Your task to perform on an android device: Clear the cart on newegg.com. Search for razer naga on newegg.com, select the first entry, and add it to the cart. Image 0: 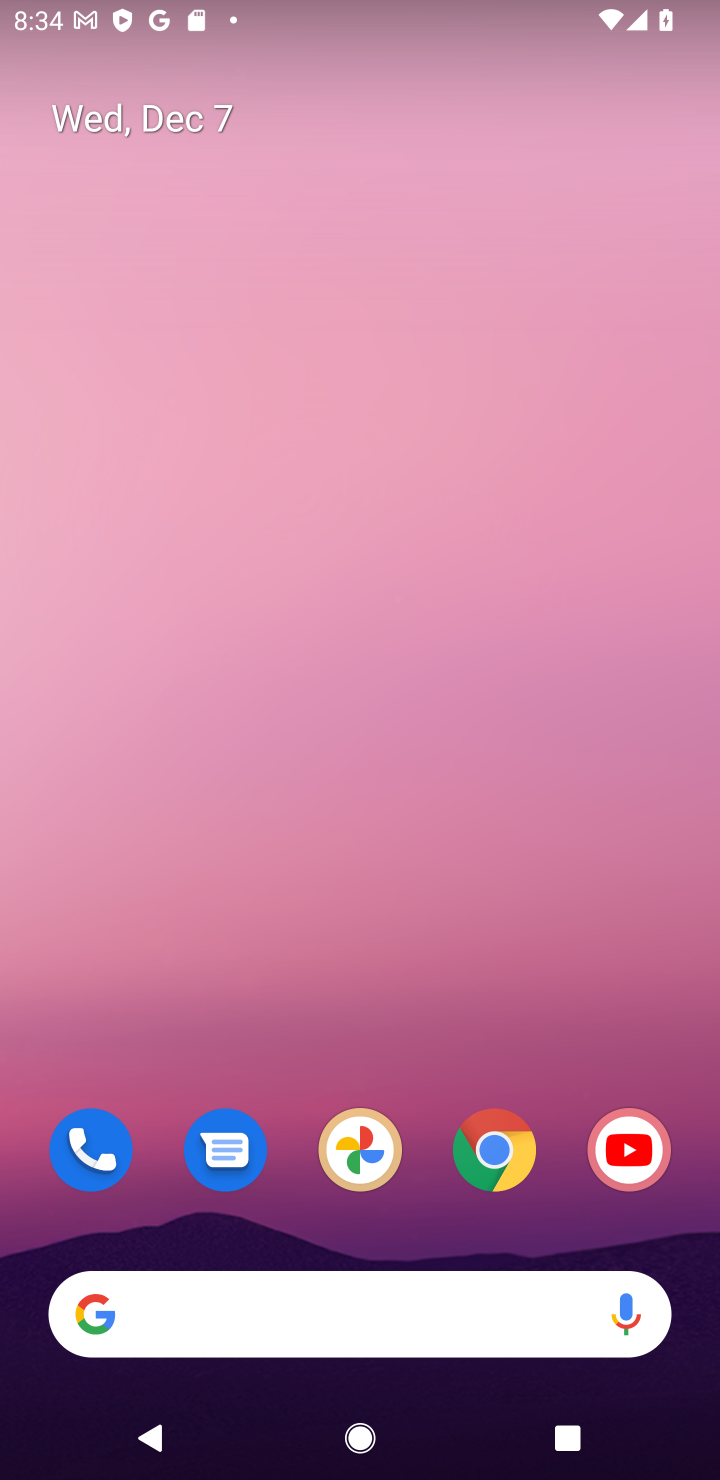
Step 0: click (500, 1155)
Your task to perform on an android device: Clear the cart on newegg.com. Search for razer naga on newegg.com, select the first entry, and add it to the cart. Image 1: 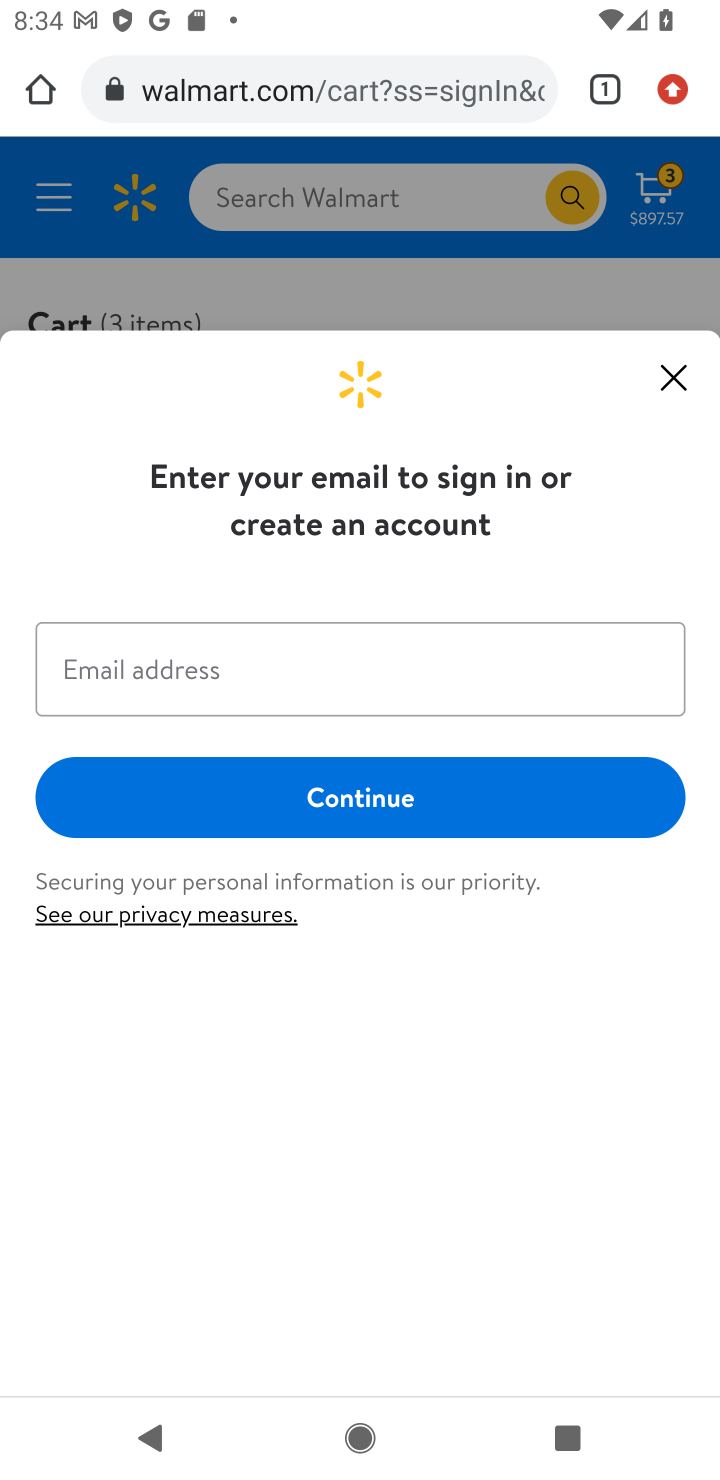
Step 1: click (302, 119)
Your task to perform on an android device: Clear the cart on newegg.com. Search for razer naga on newegg.com, select the first entry, and add it to the cart. Image 2: 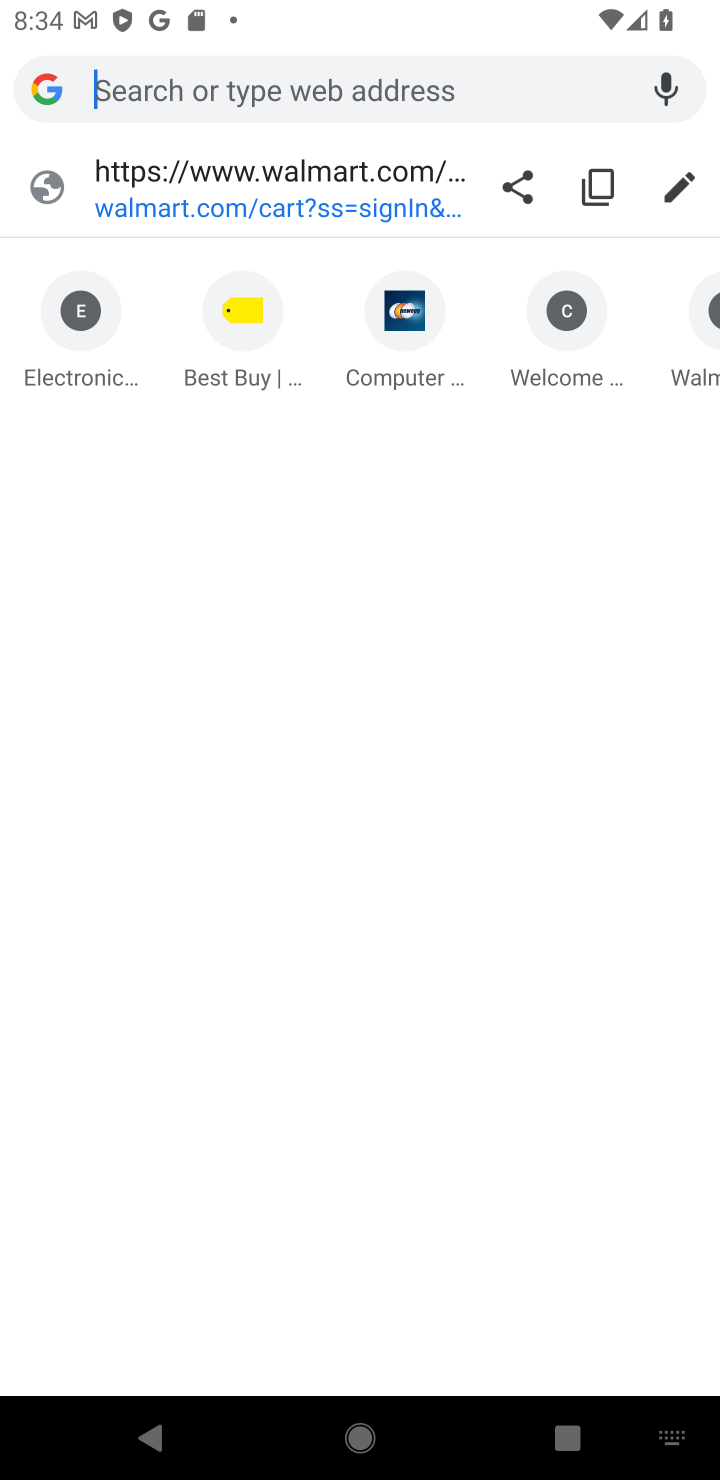
Step 2: type "newegg.com"
Your task to perform on an android device: Clear the cart on newegg.com. Search for razer naga on newegg.com, select the first entry, and add it to the cart. Image 3: 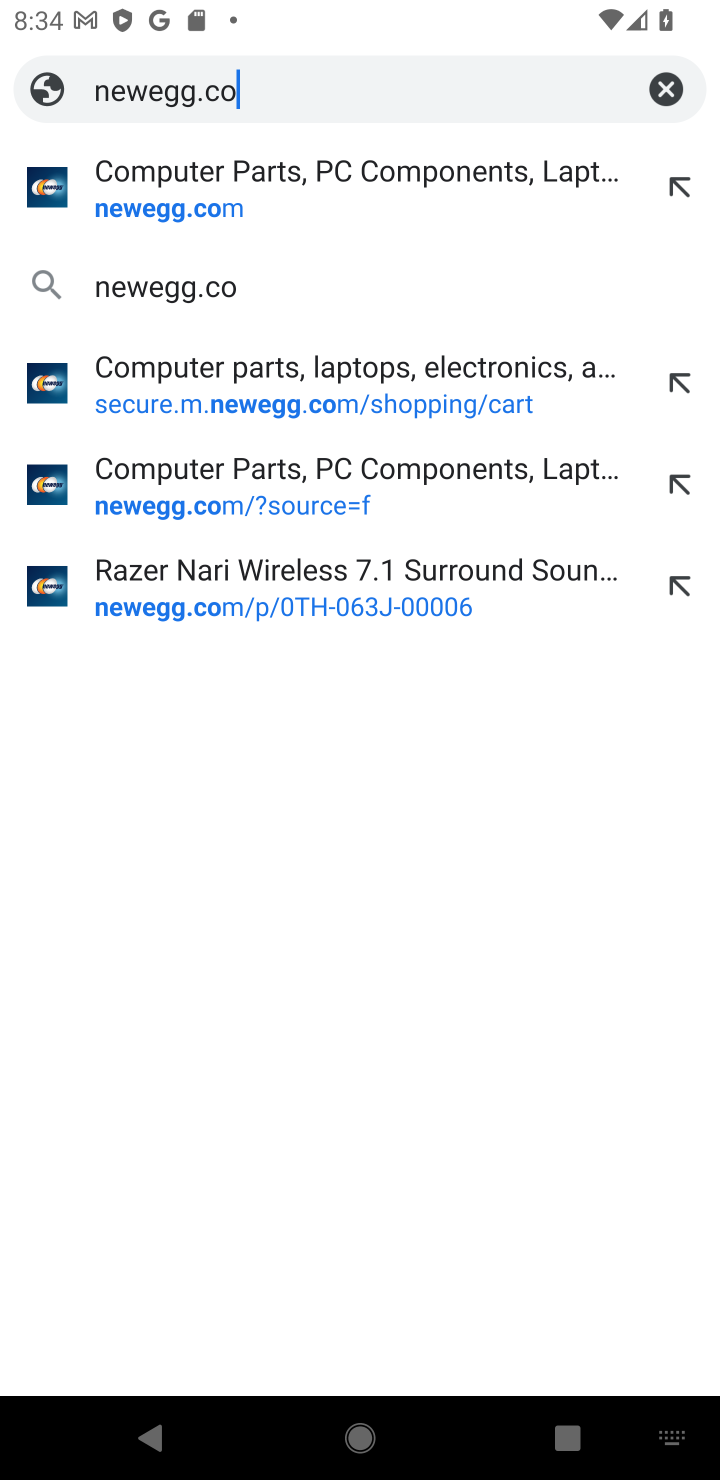
Step 3: press enter
Your task to perform on an android device: Clear the cart on newegg.com. Search for razer naga on newegg.com, select the first entry, and add it to the cart. Image 4: 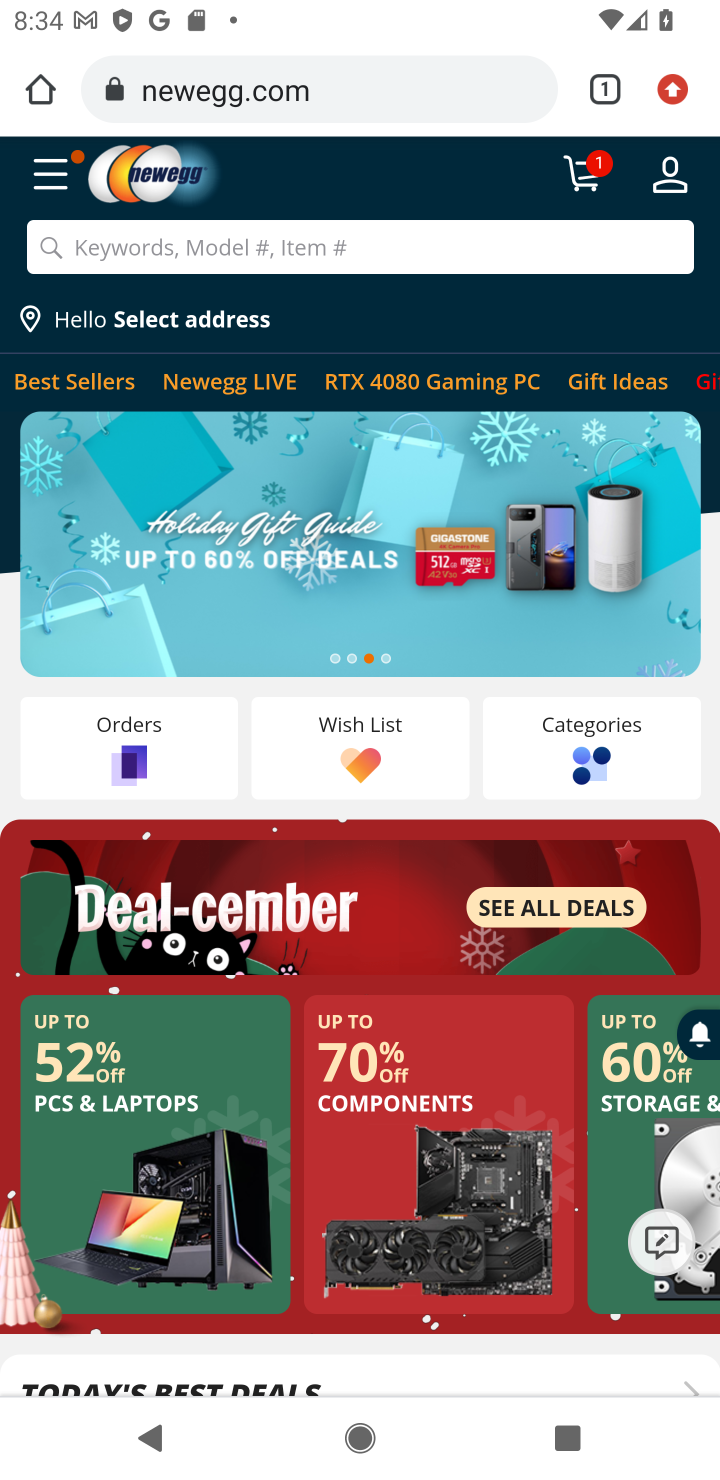
Step 4: click (181, 234)
Your task to perform on an android device: Clear the cart on newegg.com. Search for razer naga on newegg.com, select the first entry, and add it to the cart. Image 5: 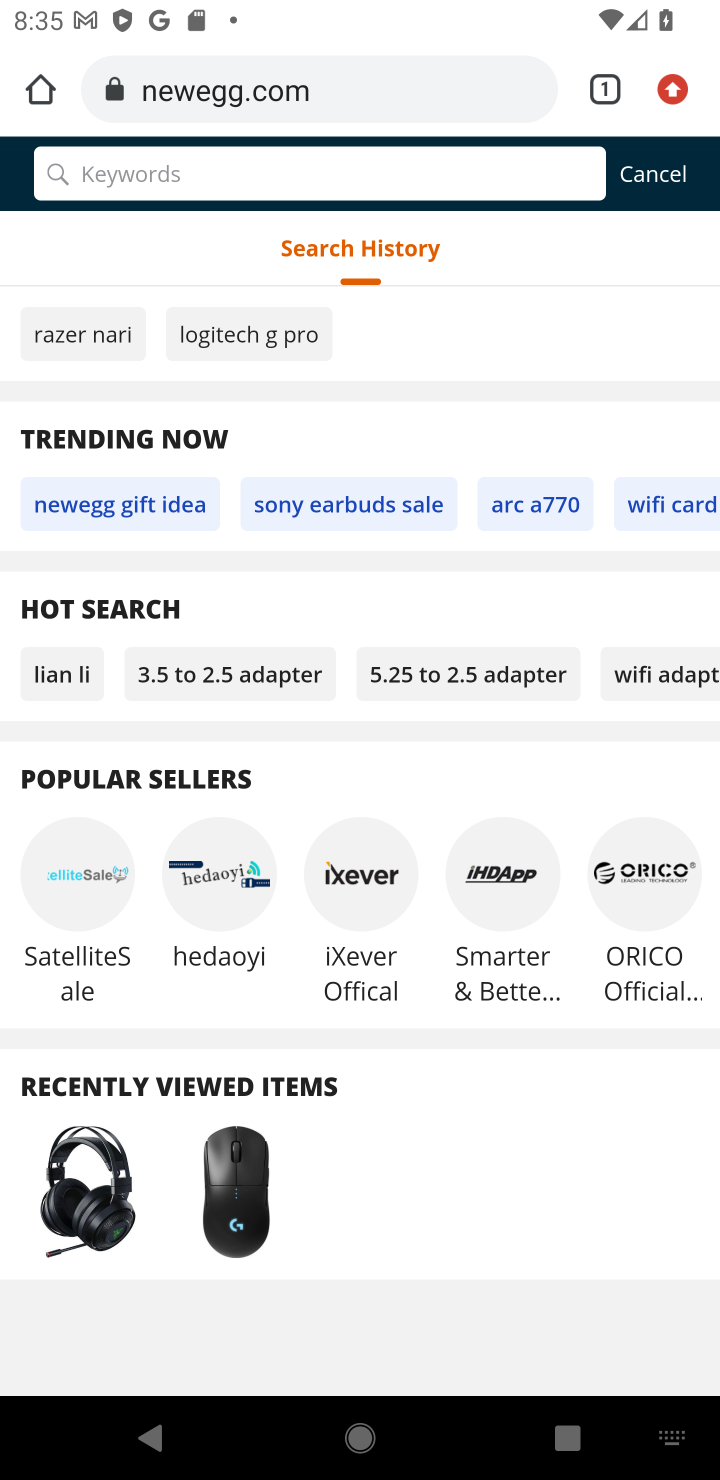
Step 5: type "razer naga"
Your task to perform on an android device: Clear the cart on newegg.com. Search for razer naga on newegg.com, select the first entry, and add it to the cart. Image 6: 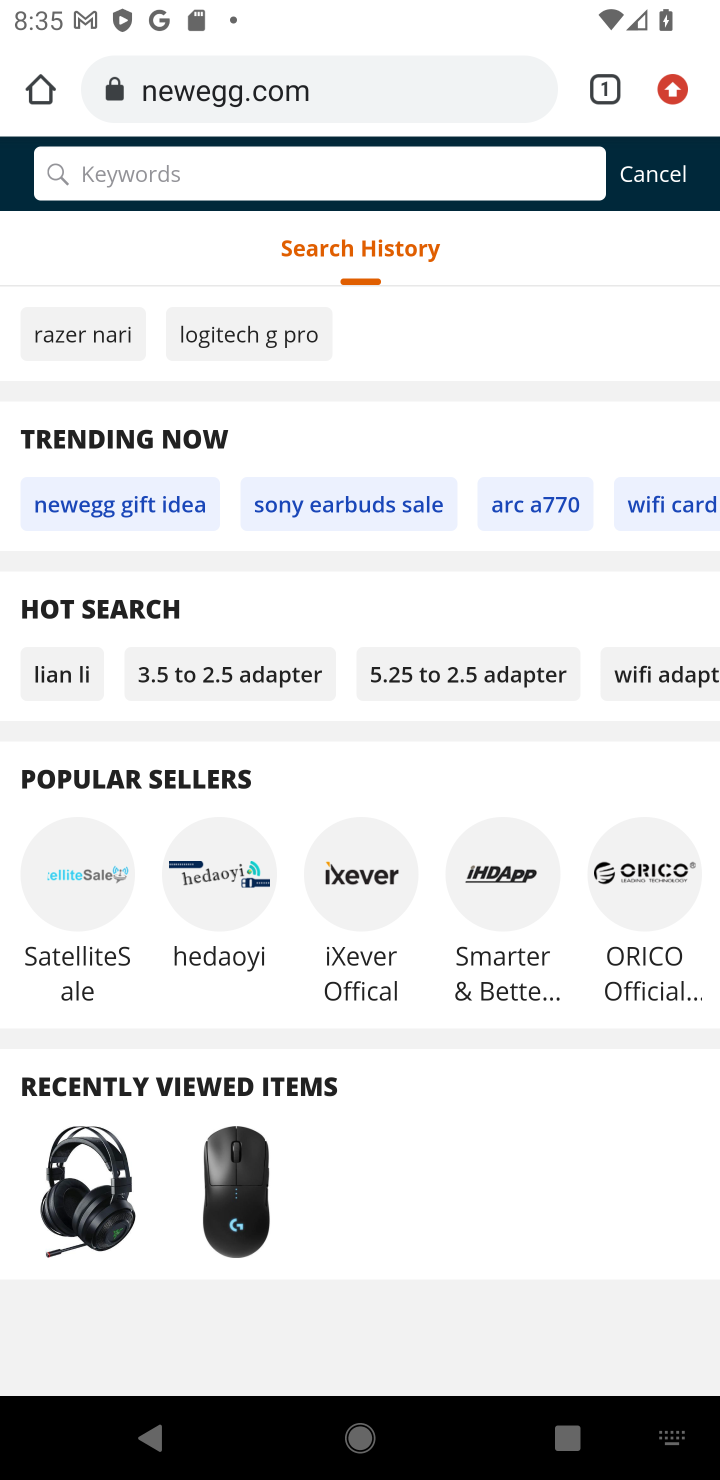
Step 6: press enter
Your task to perform on an android device: Clear the cart on newegg.com. Search for razer naga on newegg.com, select the first entry, and add it to the cart. Image 7: 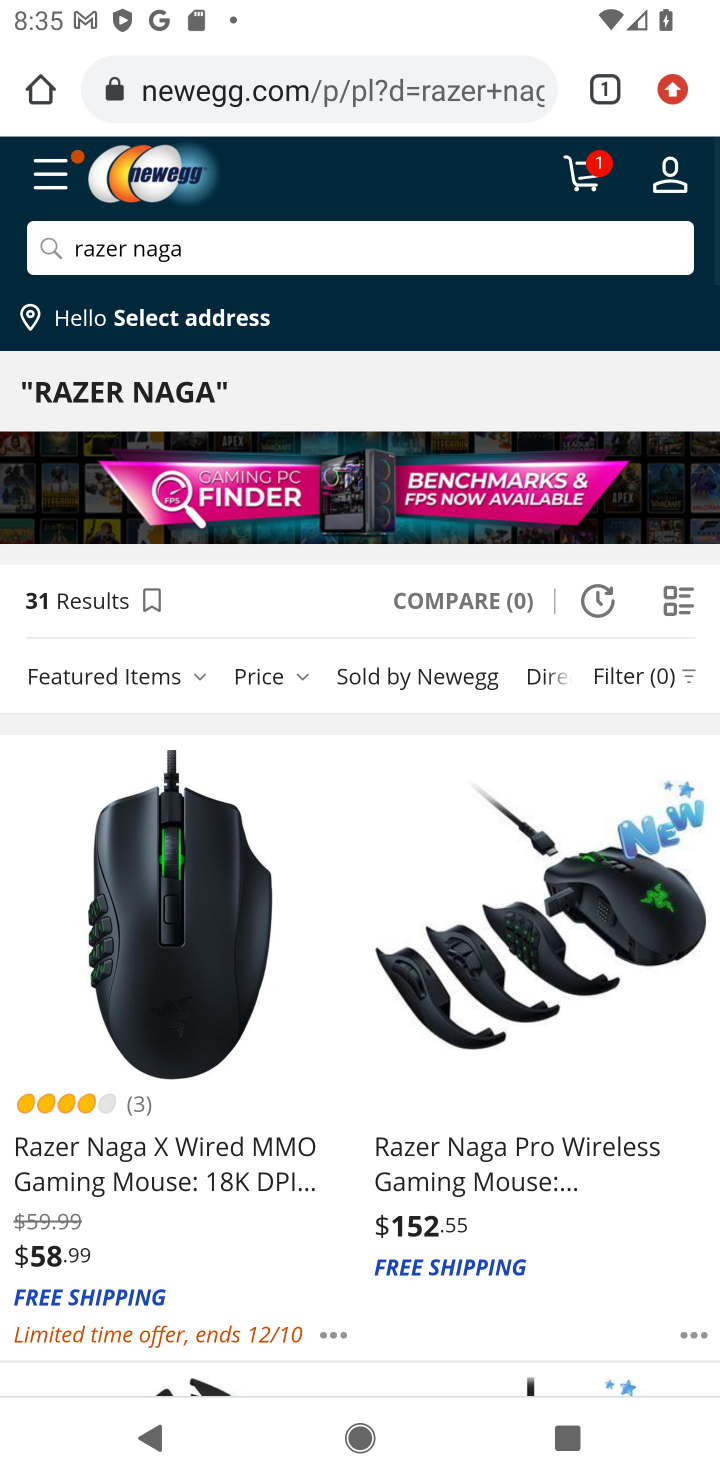
Step 7: click (176, 1002)
Your task to perform on an android device: Clear the cart on newegg.com. Search for razer naga on newegg.com, select the first entry, and add it to the cart. Image 8: 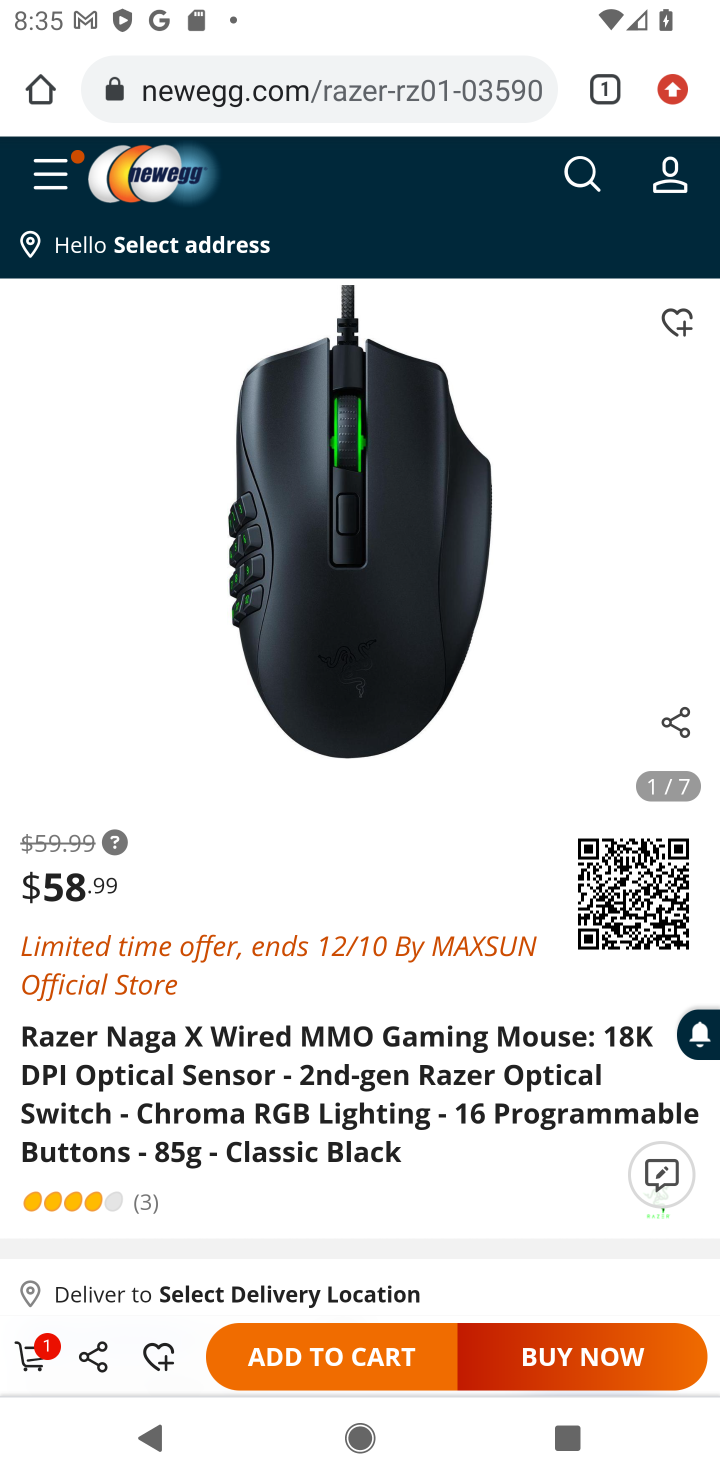
Step 8: click (318, 1359)
Your task to perform on an android device: Clear the cart on newegg.com. Search for razer naga on newegg.com, select the first entry, and add it to the cart. Image 9: 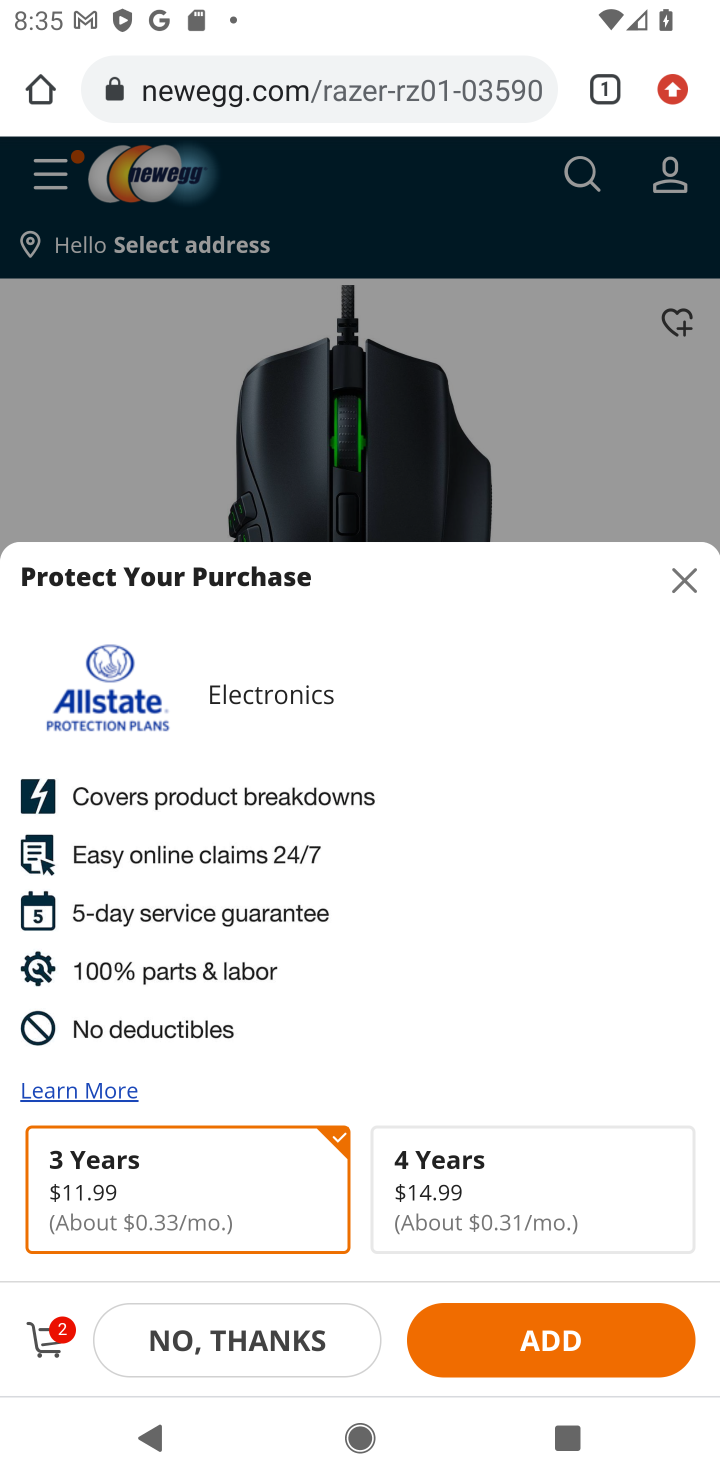
Step 9: click (575, 1339)
Your task to perform on an android device: Clear the cart on newegg.com. Search for razer naga on newegg.com, select the first entry, and add it to the cart. Image 10: 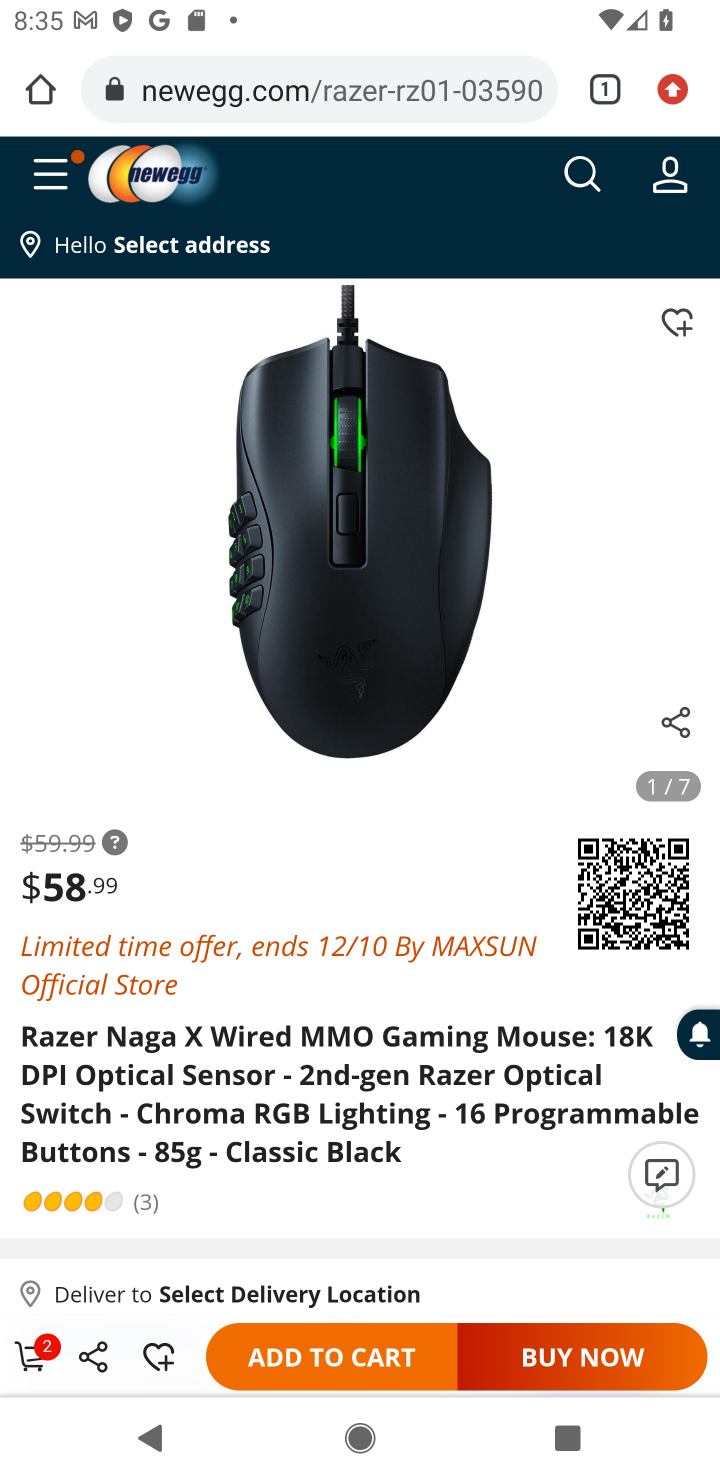
Step 10: task complete